Your task to perform on an android device: Find coffee shops on Maps Image 0: 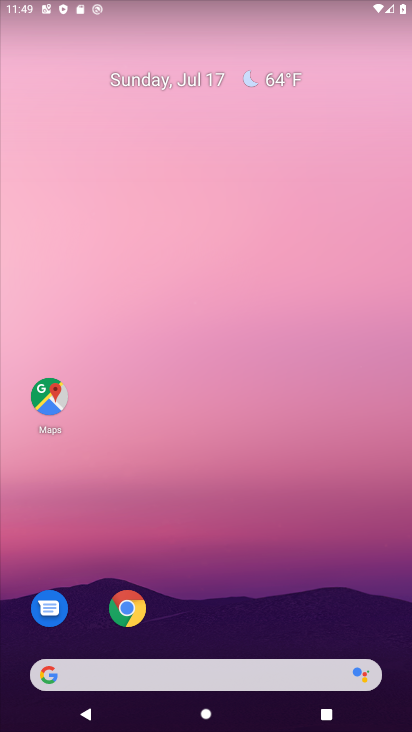
Step 0: drag from (312, 594) to (136, 15)
Your task to perform on an android device: Find coffee shops on Maps Image 1: 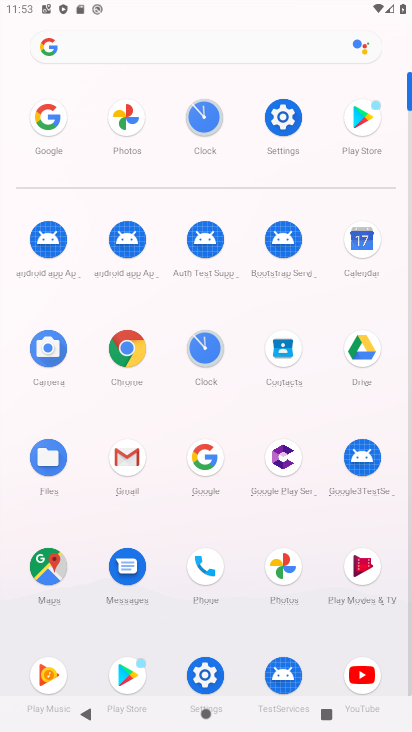
Step 1: click (48, 569)
Your task to perform on an android device: Find coffee shops on Maps Image 2: 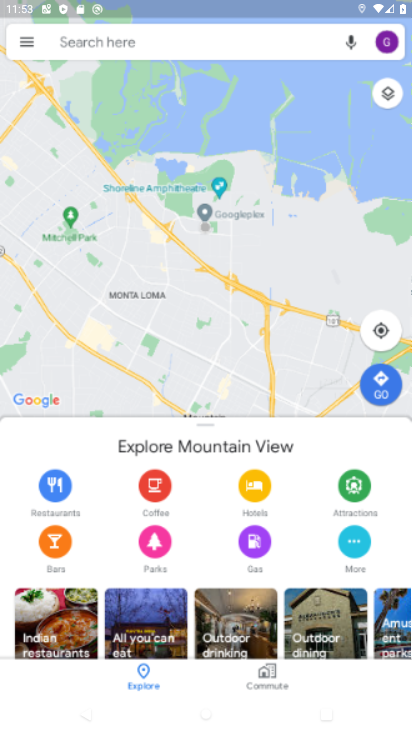
Step 2: click (138, 40)
Your task to perform on an android device: Find coffee shops on Maps Image 3: 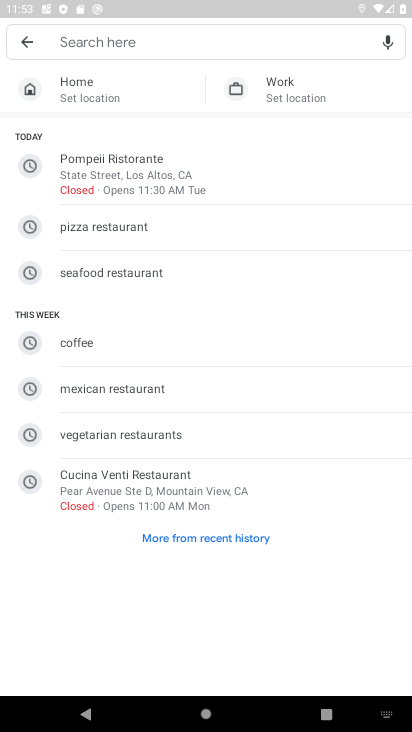
Step 3: click (69, 337)
Your task to perform on an android device: Find coffee shops on Maps Image 4: 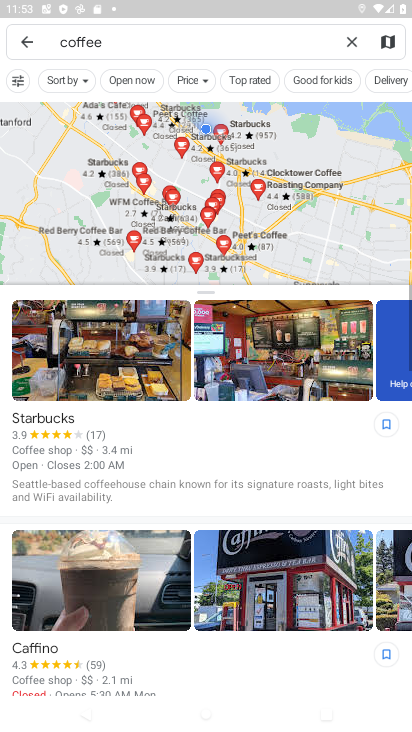
Step 4: task complete